Your task to perform on an android device: change the clock display to digital Image 0: 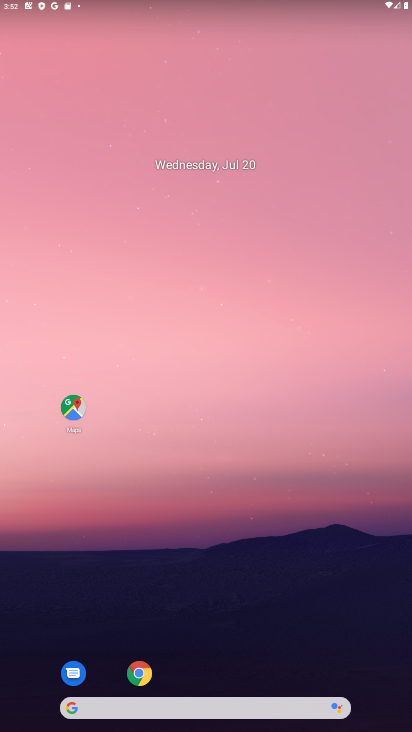
Step 0: press home button
Your task to perform on an android device: change the clock display to digital Image 1: 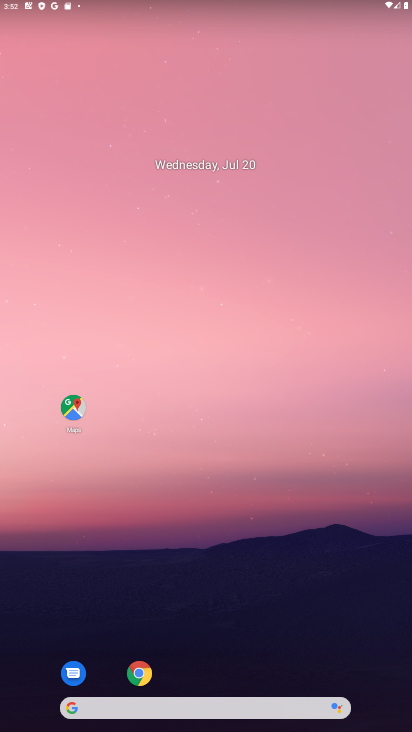
Step 1: drag from (281, 635) to (378, 7)
Your task to perform on an android device: change the clock display to digital Image 2: 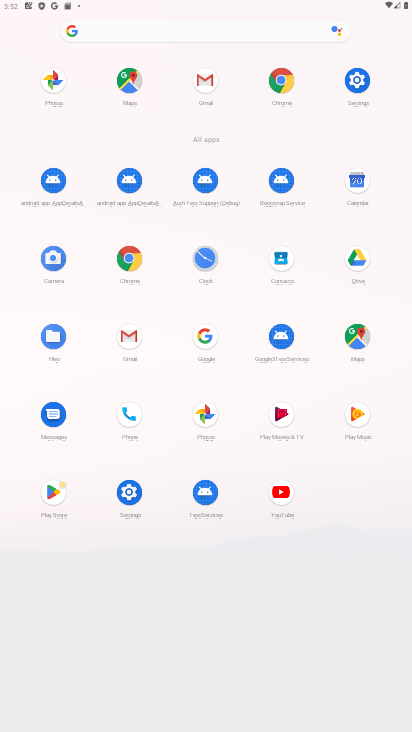
Step 2: click (352, 80)
Your task to perform on an android device: change the clock display to digital Image 3: 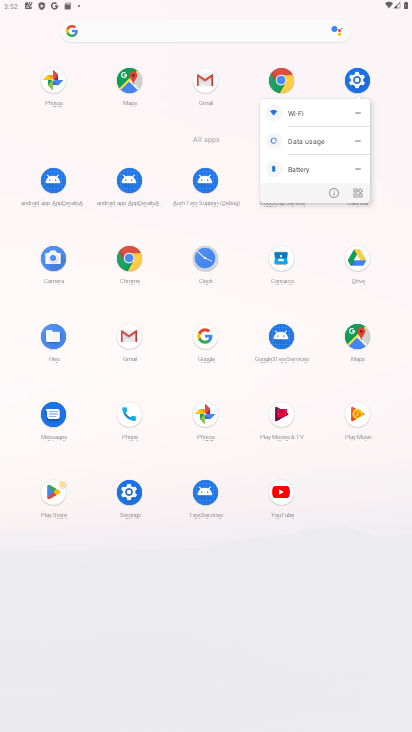
Step 3: click (352, 79)
Your task to perform on an android device: change the clock display to digital Image 4: 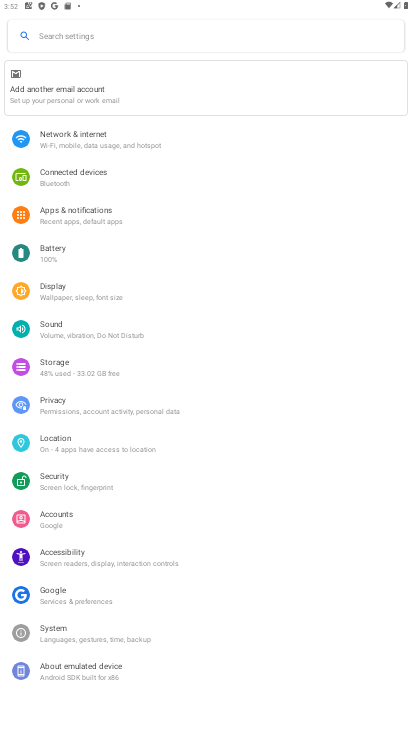
Step 4: press back button
Your task to perform on an android device: change the clock display to digital Image 5: 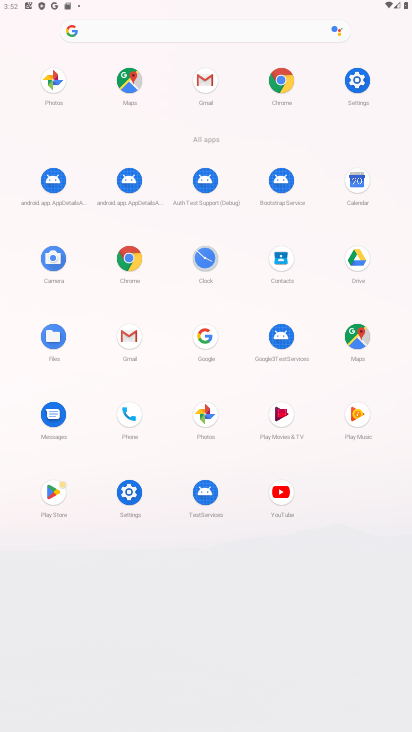
Step 5: click (200, 264)
Your task to perform on an android device: change the clock display to digital Image 6: 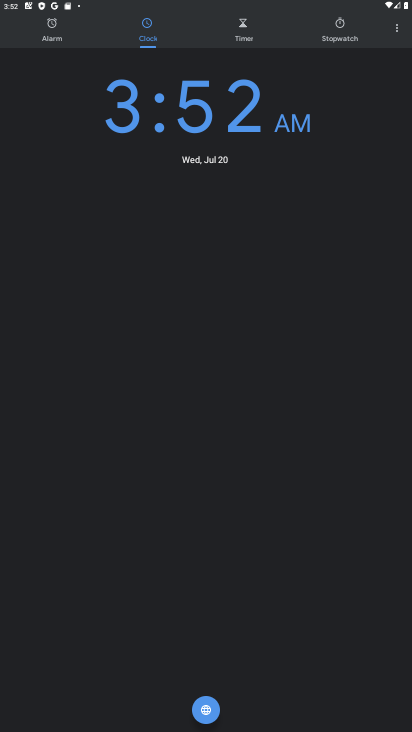
Step 6: click (392, 34)
Your task to perform on an android device: change the clock display to digital Image 7: 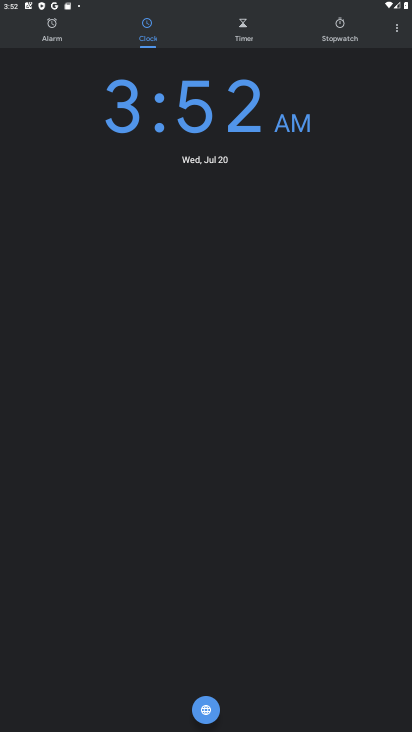
Step 7: click (400, 19)
Your task to perform on an android device: change the clock display to digital Image 8: 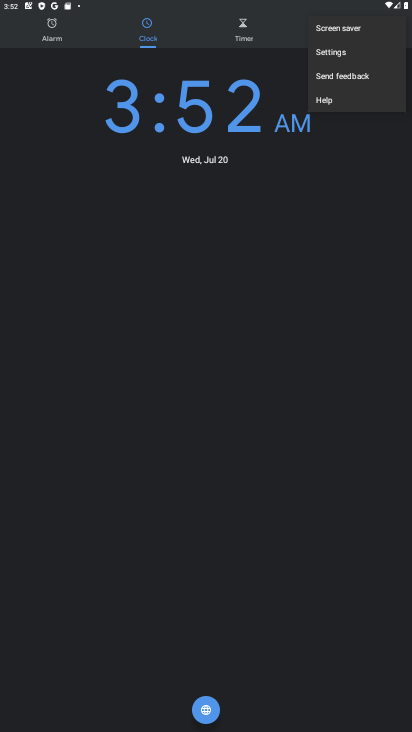
Step 8: click (349, 54)
Your task to perform on an android device: change the clock display to digital Image 9: 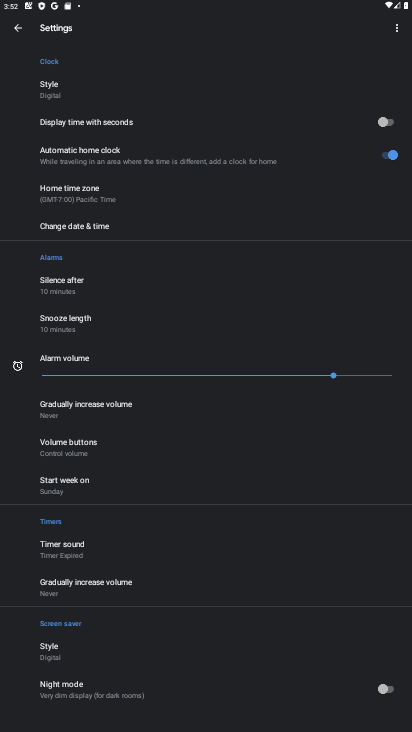
Step 9: click (46, 82)
Your task to perform on an android device: change the clock display to digital Image 10: 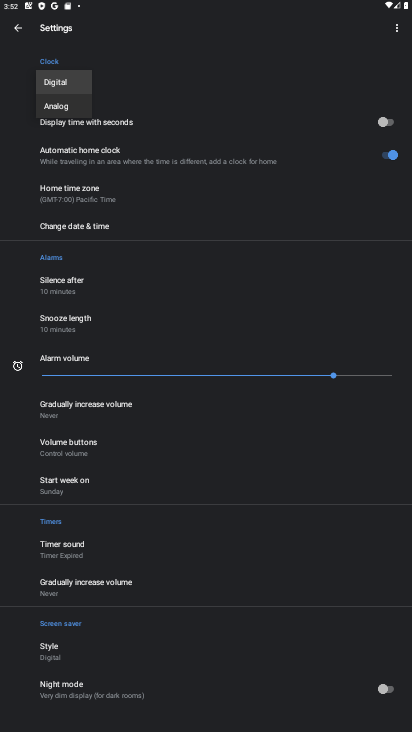
Step 10: task complete